Your task to perform on an android device: open app "Microsoft Outlook" (install if not already installed), go to login, and select forgot password Image 0: 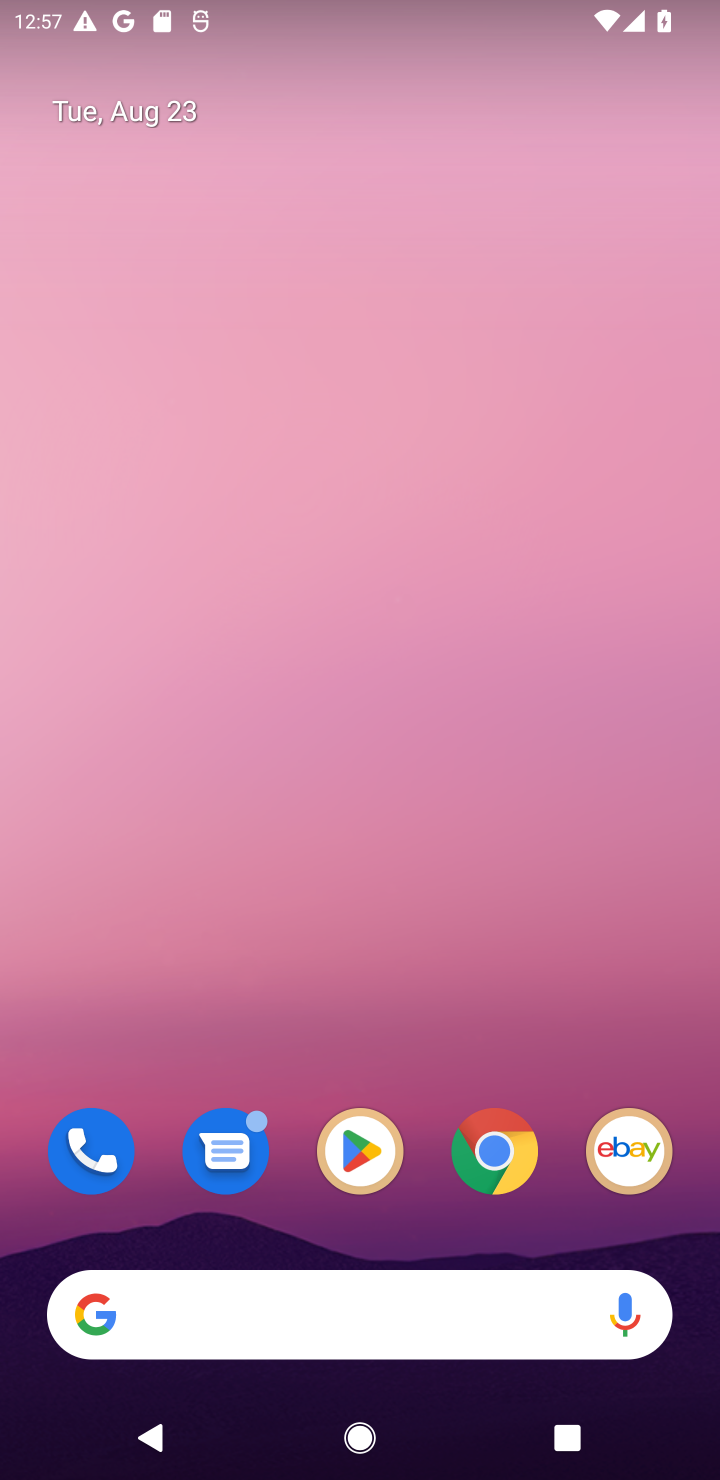
Step 0: click (365, 1124)
Your task to perform on an android device: open app "Microsoft Outlook" (install if not already installed), go to login, and select forgot password Image 1: 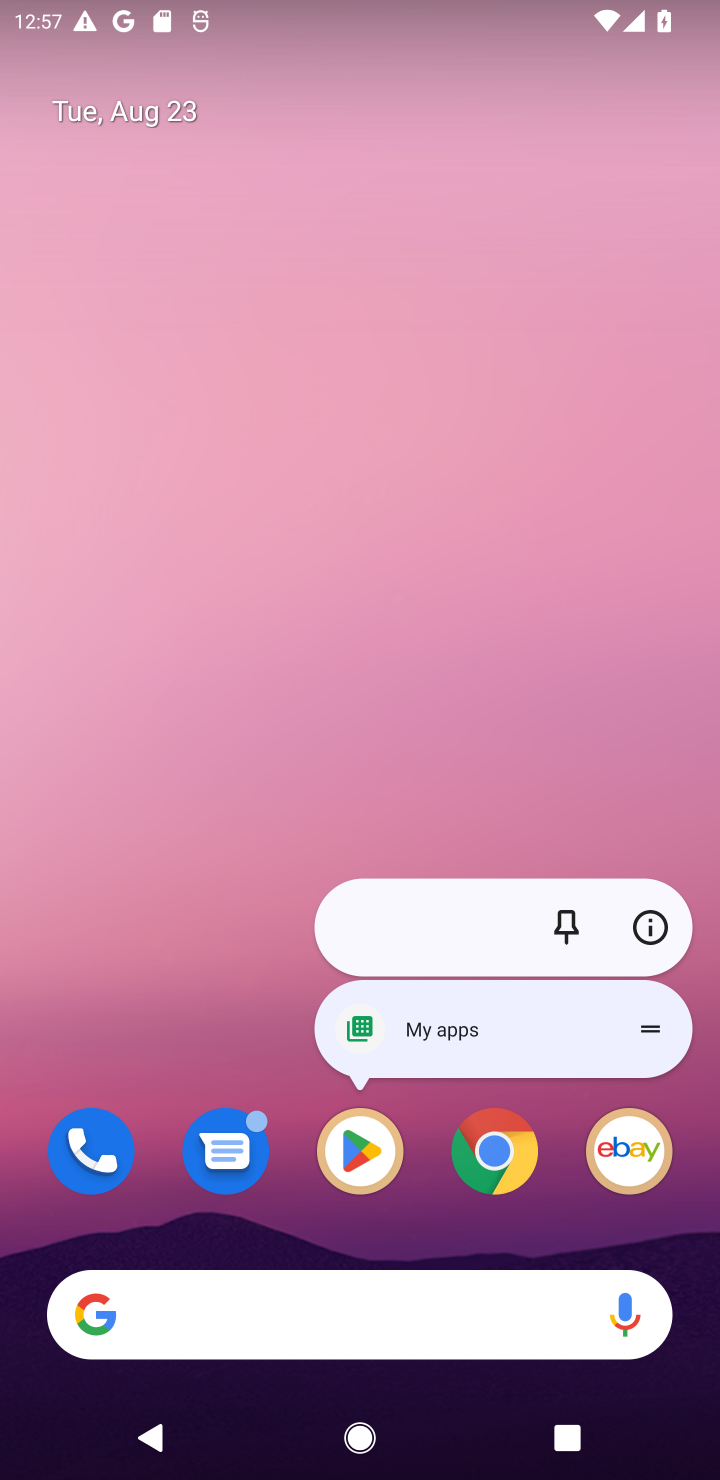
Step 1: click (368, 1160)
Your task to perform on an android device: open app "Microsoft Outlook" (install if not already installed), go to login, and select forgot password Image 2: 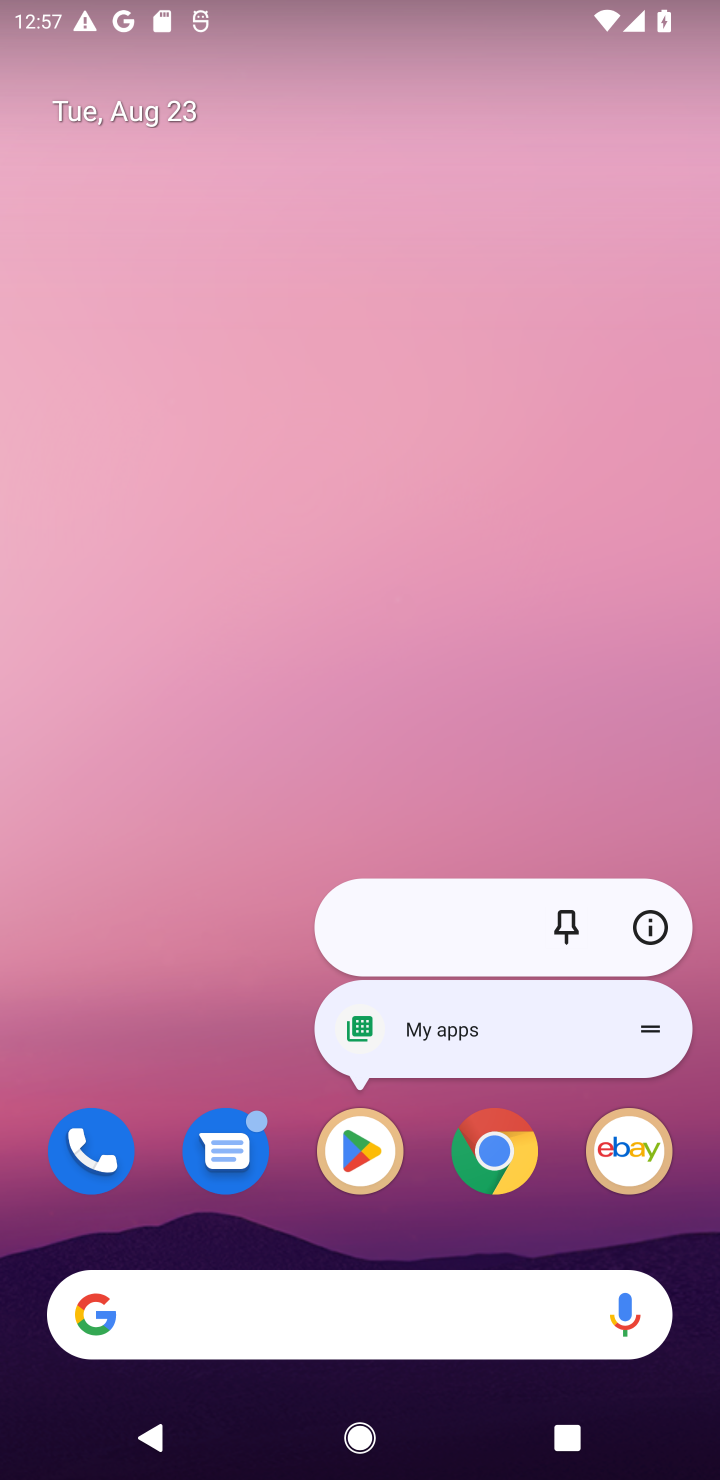
Step 2: click (368, 1160)
Your task to perform on an android device: open app "Microsoft Outlook" (install if not already installed), go to login, and select forgot password Image 3: 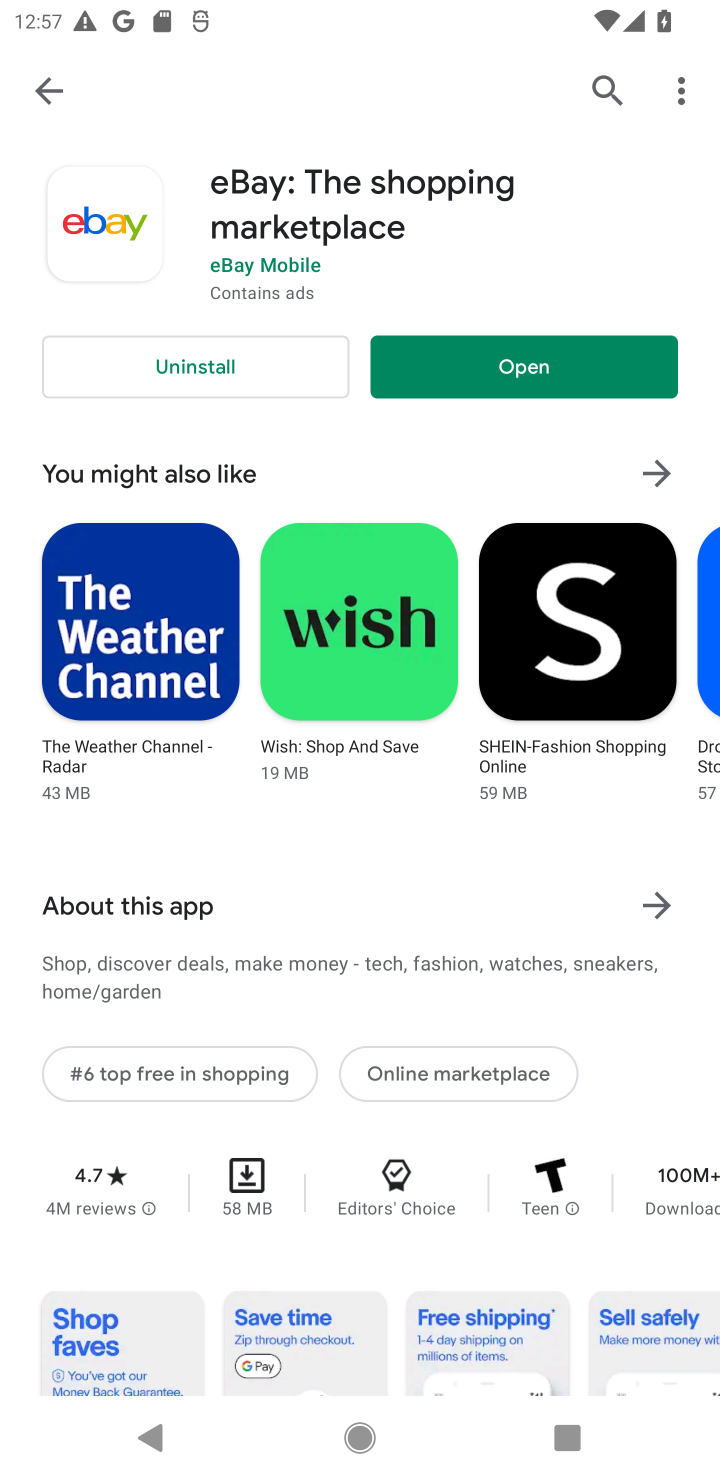
Step 3: click (593, 81)
Your task to perform on an android device: open app "Microsoft Outlook" (install if not already installed), go to login, and select forgot password Image 4: 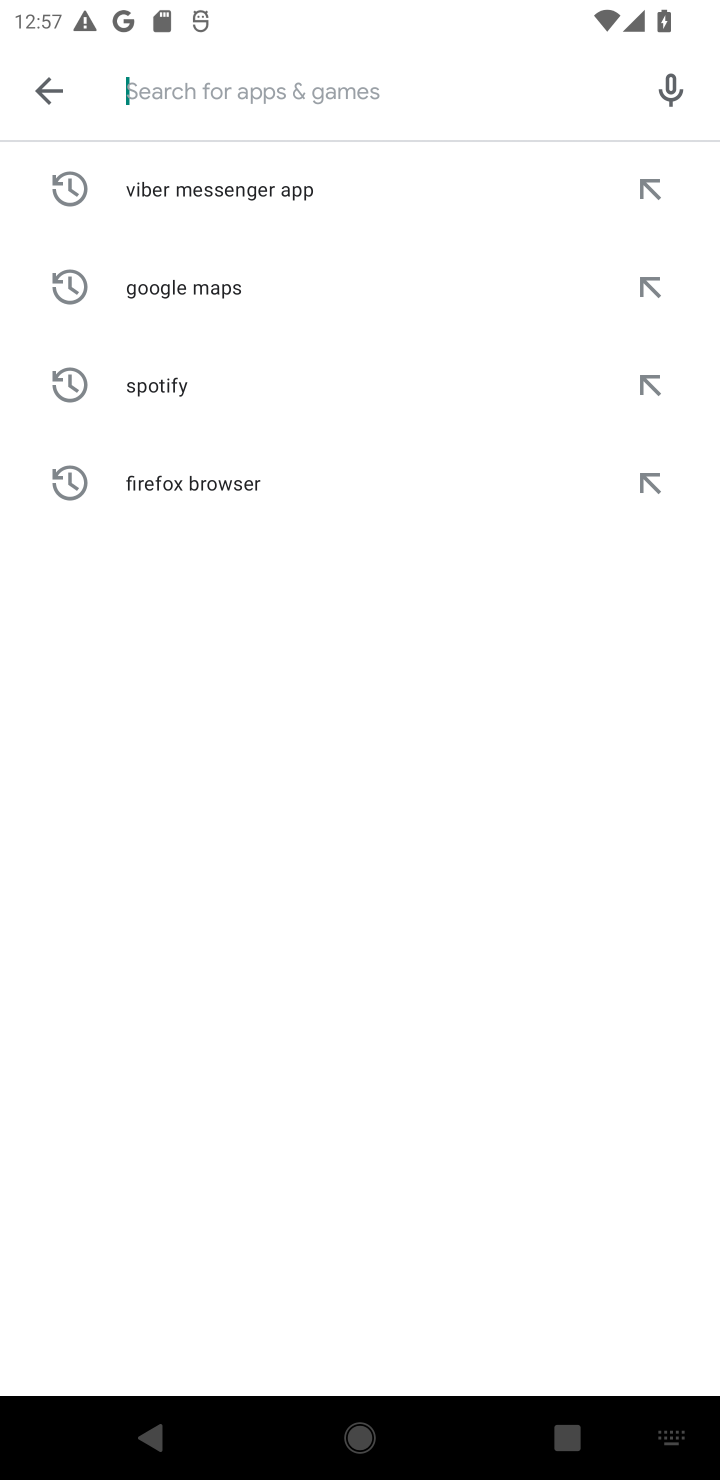
Step 4: type "Microsoft Outlook"
Your task to perform on an android device: open app "Microsoft Outlook" (install if not already installed), go to login, and select forgot password Image 5: 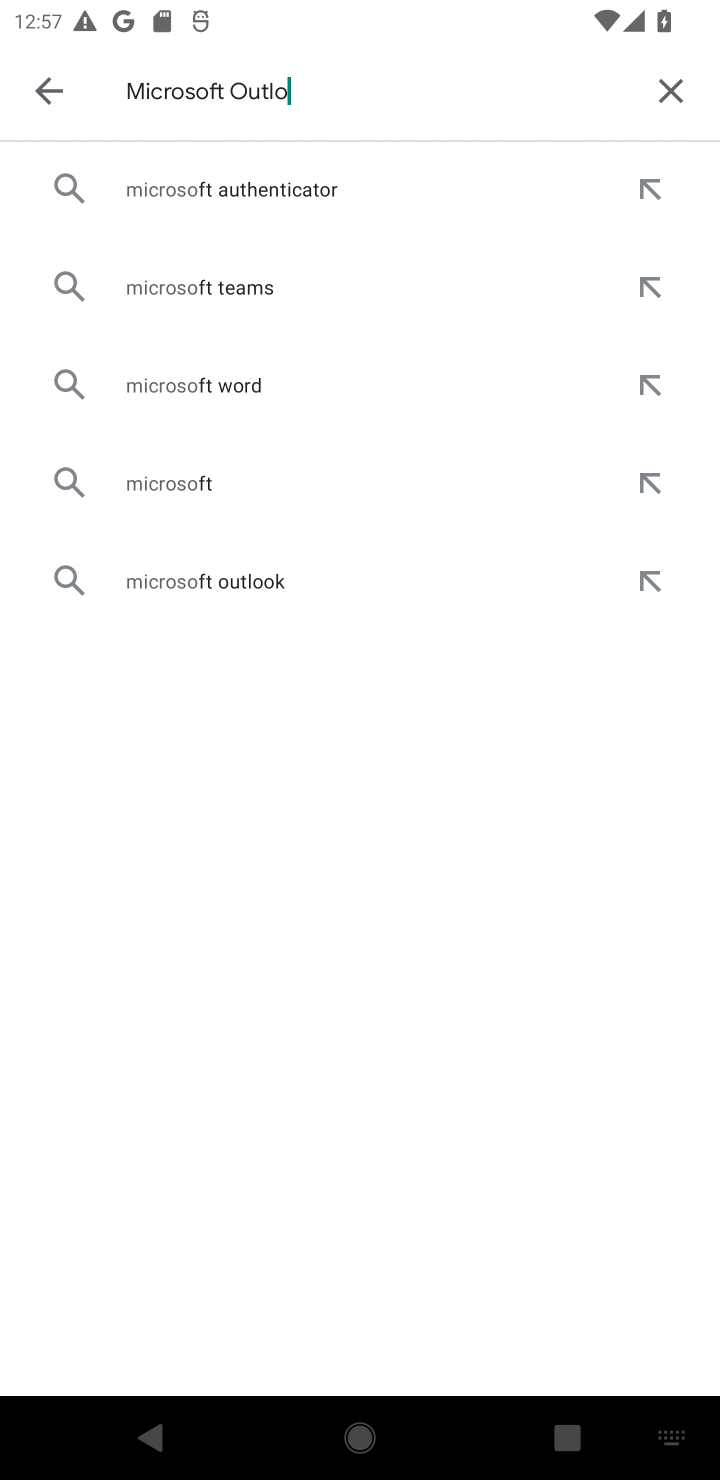
Step 5: type ""
Your task to perform on an android device: open app "Microsoft Outlook" (install if not already installed), go to login, and select forgot password Image 6: 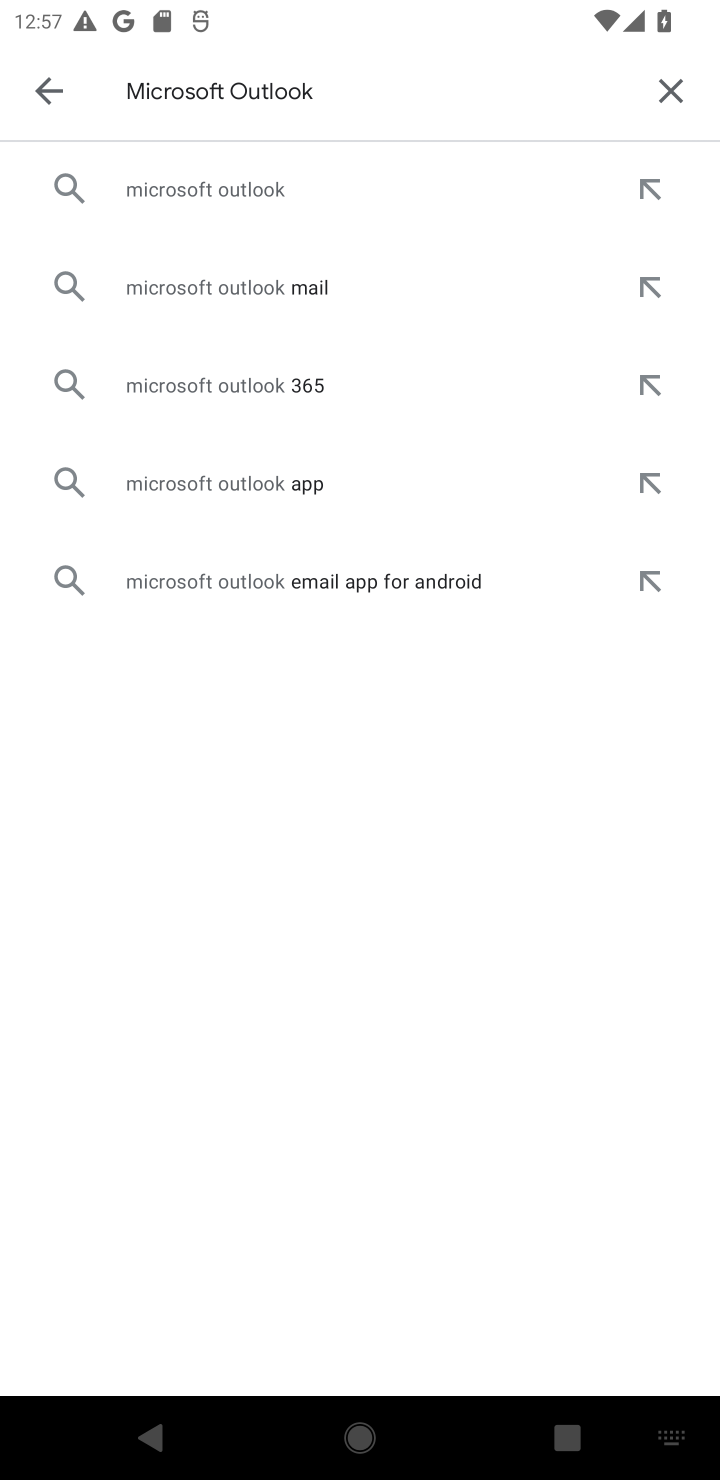
Step 6: click (302, 187)
Your task to perform on an android device: open app "Microsoft Outlook" (install if not already installed), go to login, and select forgot password Image 7: 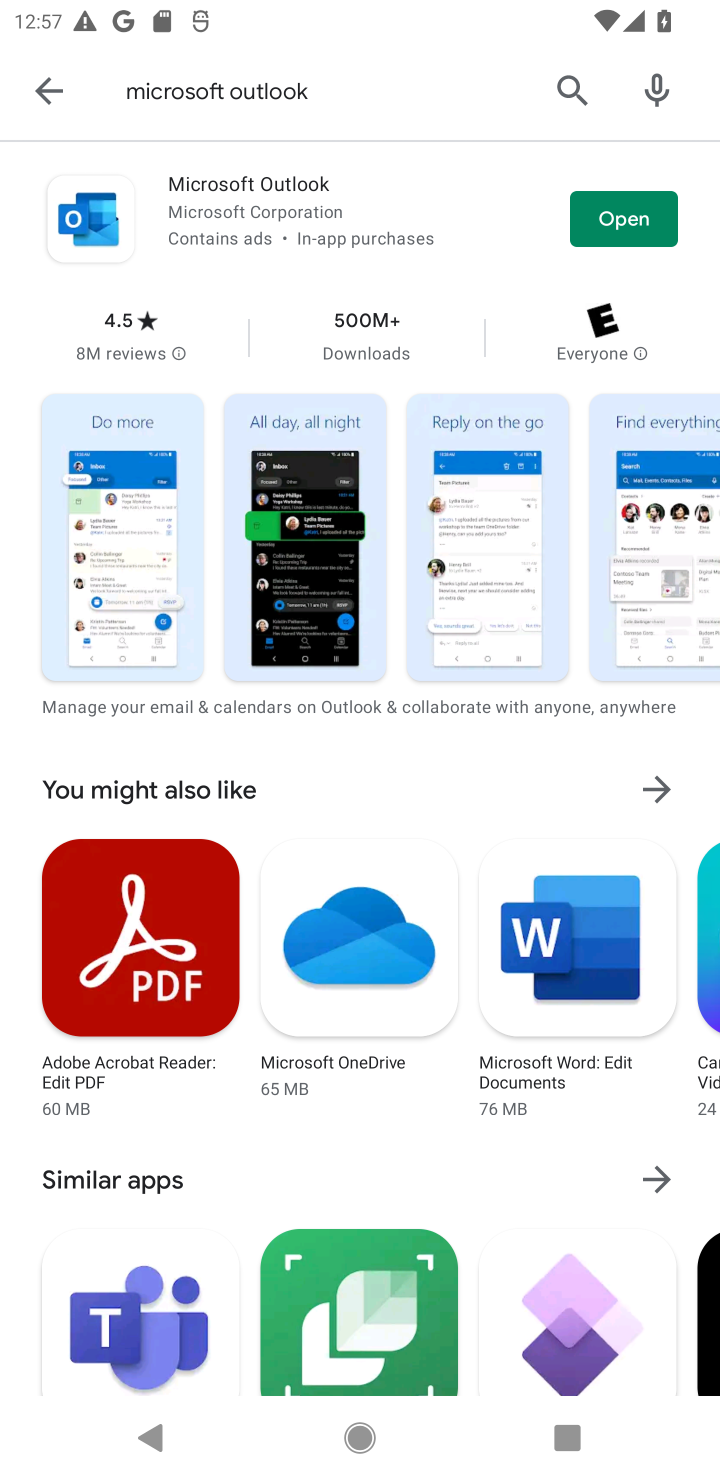
Step 7: click (593, 213)
Your task to perform on an android device: open app "Microsoft Outlook" (install if not already installed), go to login, and select forgot password Image 8: 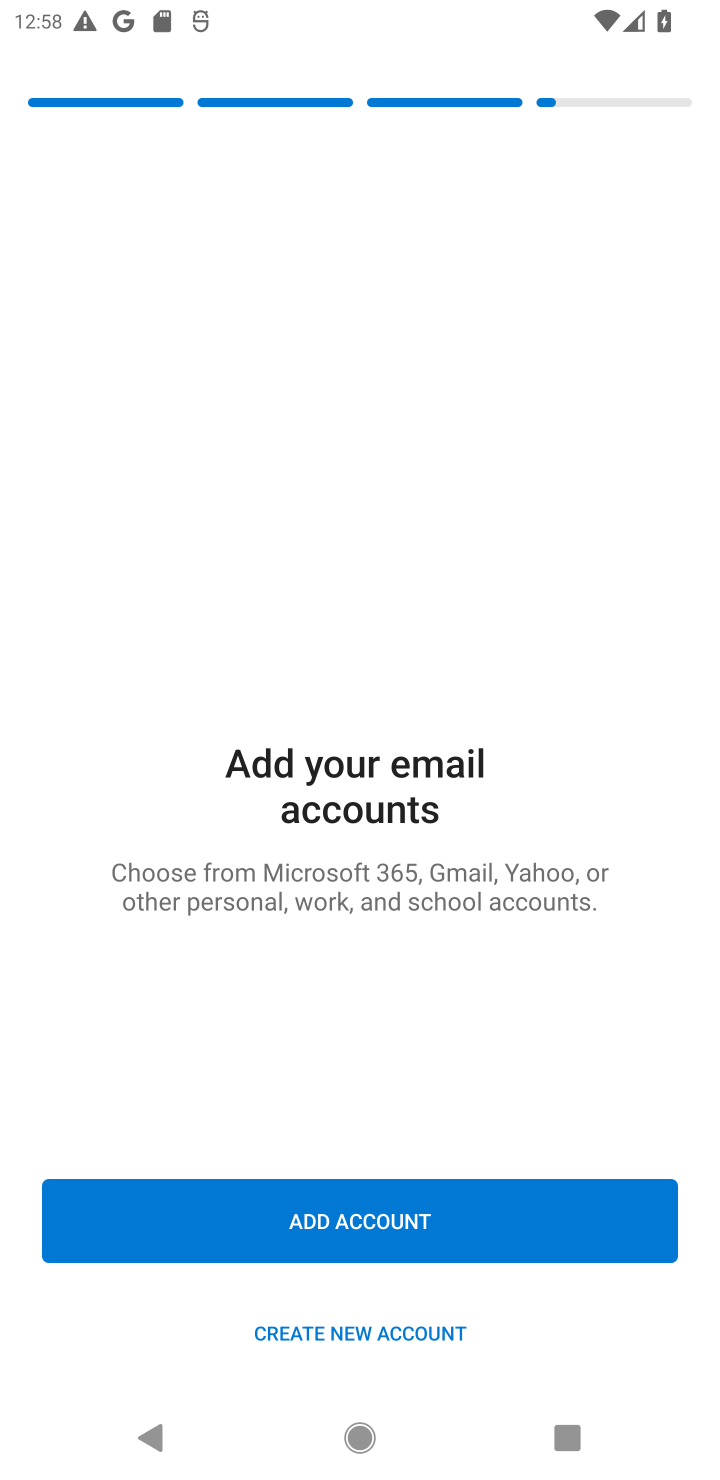
Step 8: task complete